Your task to perform on an android device: Search for sushi restaurants on Maps Image 0: 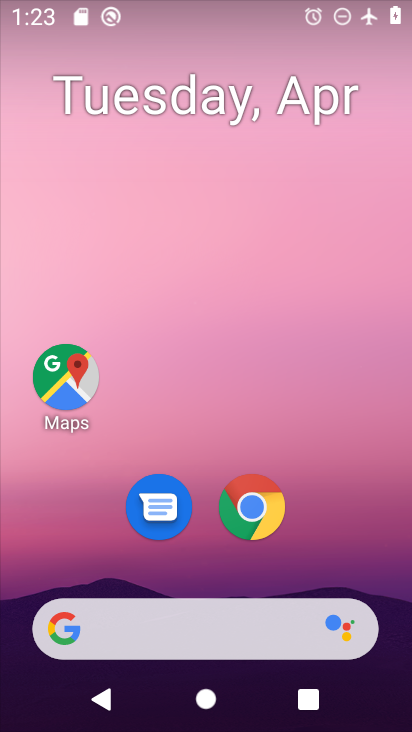
Step 0: drag from (343, 535) to (283, 16)
Your task to perform on an android device: Search for sushi restaurants on Maps Image 1: 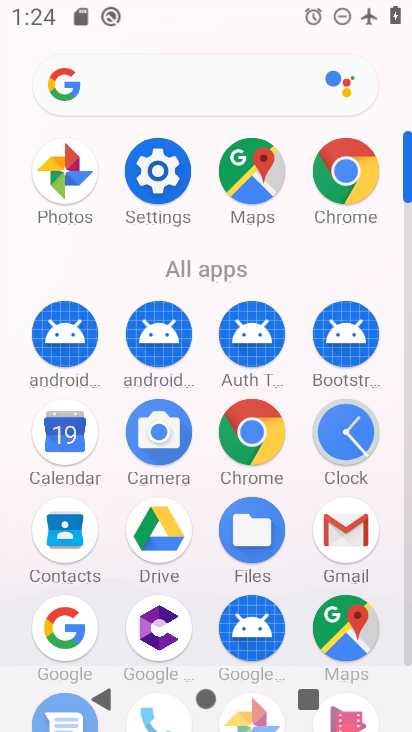
Step 1: click (158, 180)
Your task to perform on an android device: Search for sushi restaurants on Maps Image 2: 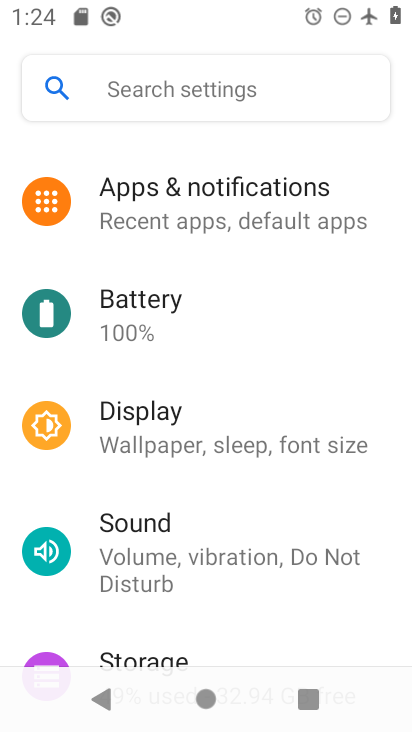
Step 2: drag from (301, 279) to (191, 668)
Your task to perform on an android device: Search for sushi restaurants on Maps Image 3: 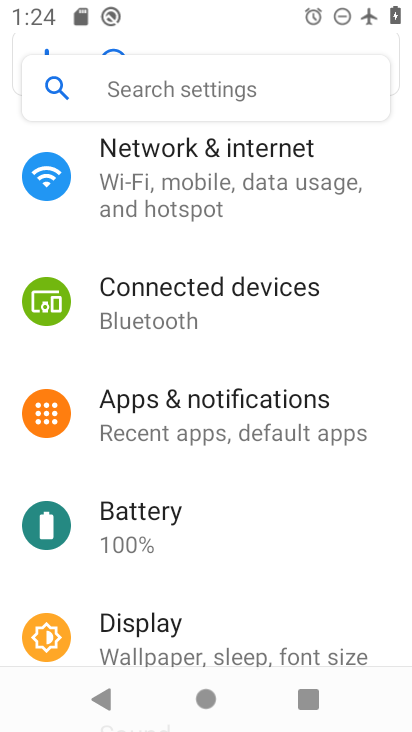
Step 3: click (197, 188)
Your task to perform on an android device: Search for sushi restaurants on Maps Image 4: 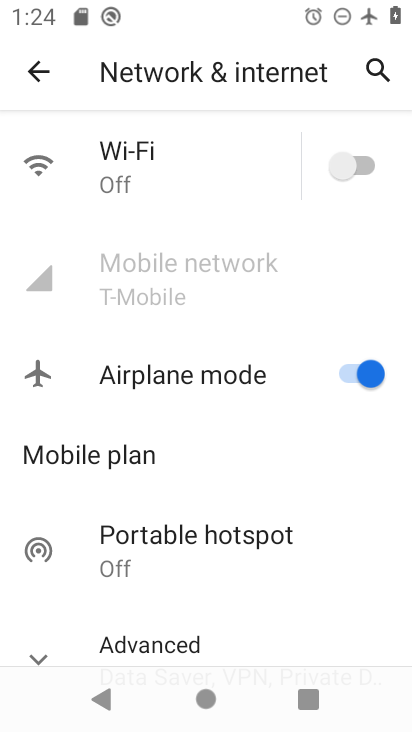
Step 4: click (356, 358)
Your task to perform on an android device: Search for sushi restaurants on Maps Image 5: 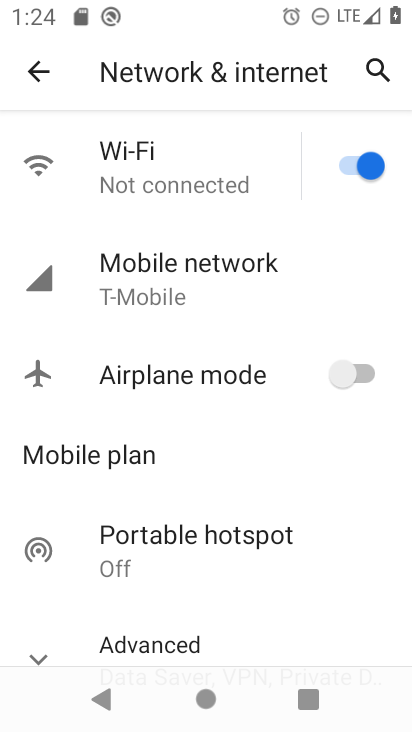
Step 5: press home button
Your task to perform on an android device: Search for sushi restaurants on Maps Image 6: 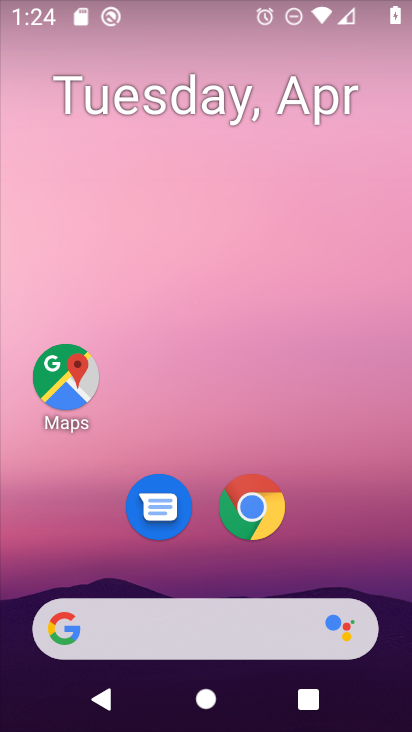
Step 6: click (75, 370)
Your task to perform on an android device: Search for sushi restaurants on Maps Image 7: 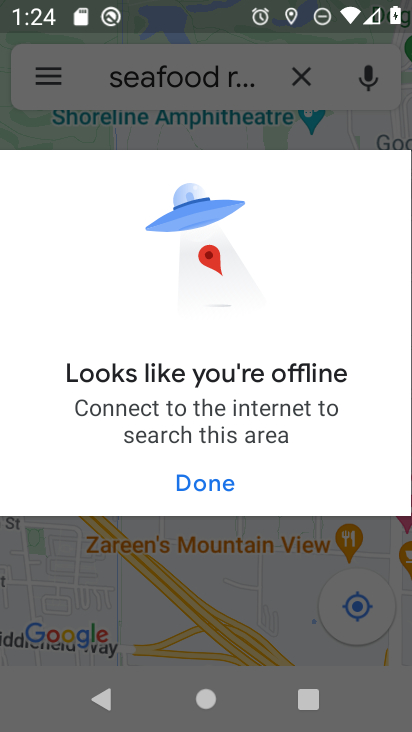
Step 7: click (188, 497)
Your task to perform on an android device: Search for sushi restaurants on Maps Image 8: 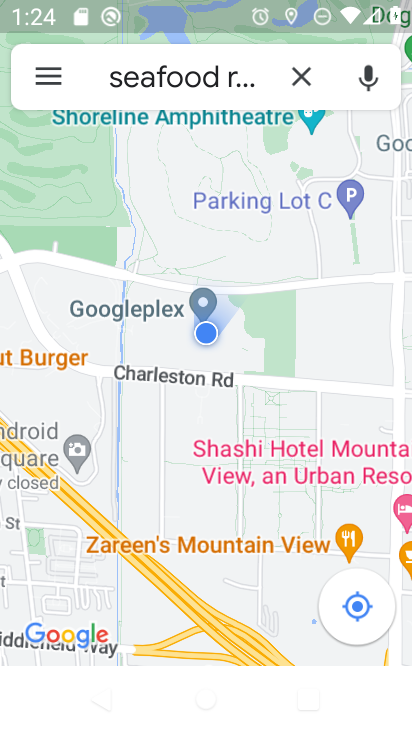
Step 8: click (309, 81)
Your task to perform on an android device: Search for sushi restaurants on Maps Image 9: 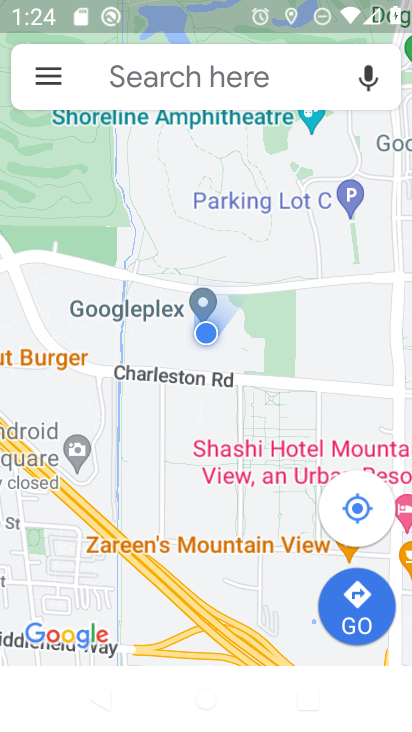
Step 9: click (309, 81)
Your task to perform on an android device: Search for sushi restaurants on Maps Image 10: 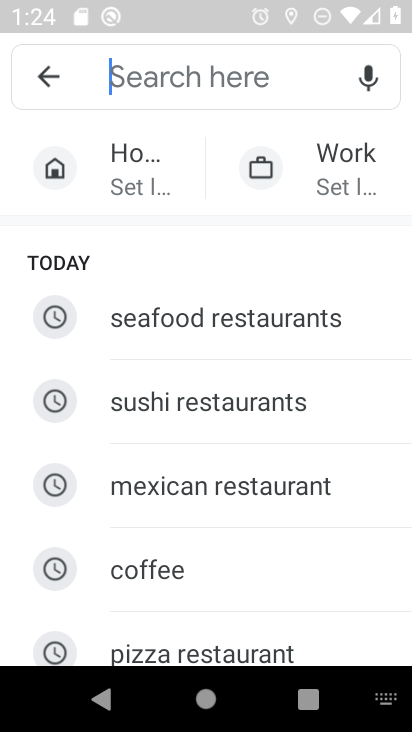
Step 10: click (300, 412)
Your task to perform on an android device: Search for sushi restaurants on Maps Image 11: 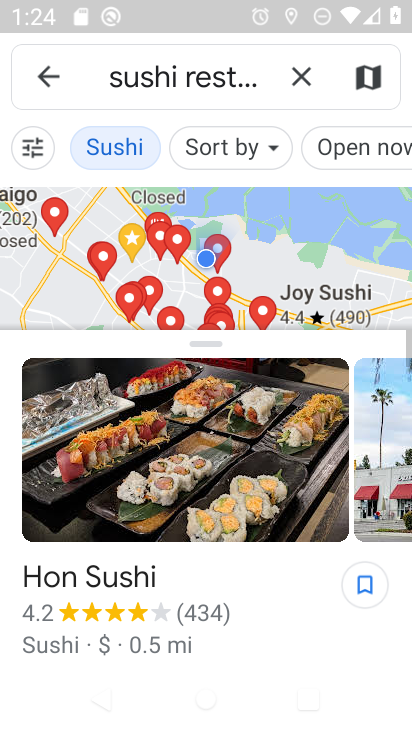
Step 11: task complete